Your task to perform on an android device: turn off smart reply in the gmail app Image 0: 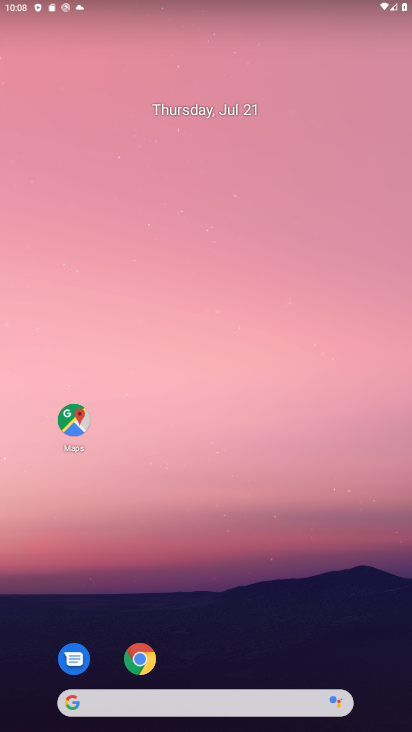
Step 0: task complete